Your task to perform on an android device: Go to Android settings Image 0: 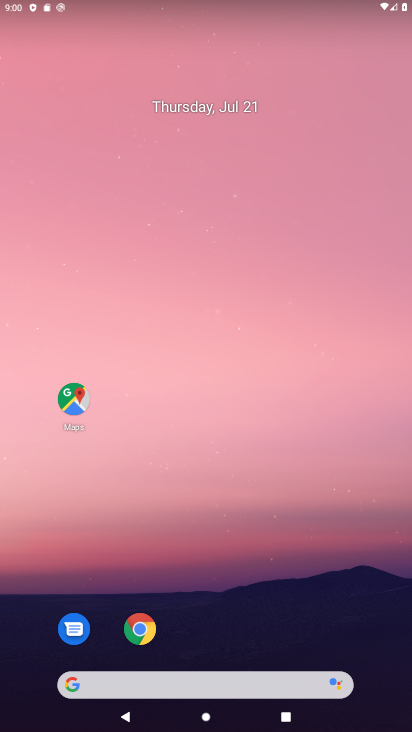
Step 0: drag from (276, 594) to (386, 9)
Your task to perform on an android device: Go to Android settings Image 1: 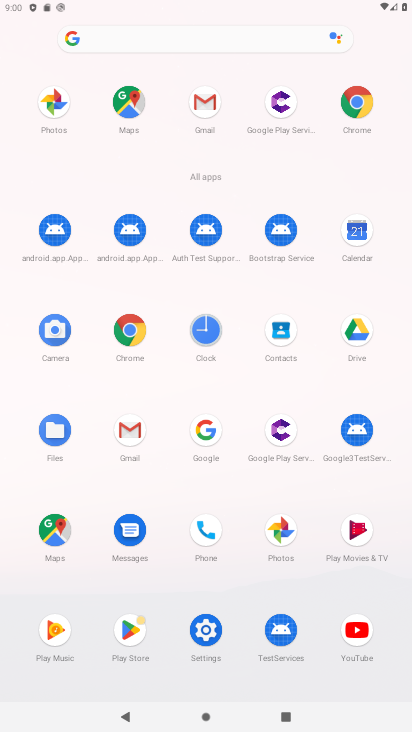
Step 1: click (207, 628)
Your task to perform on an android device: Go to Android settings Image 2: 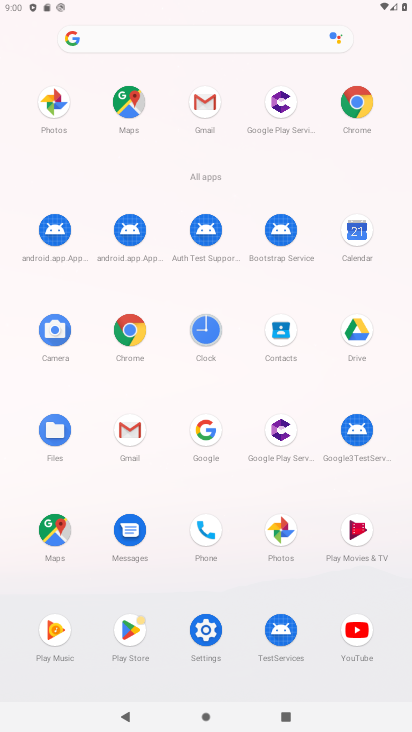
Step 2: click (207, 628)
Your task to perform on an android device: Go to Android settings Image 3: 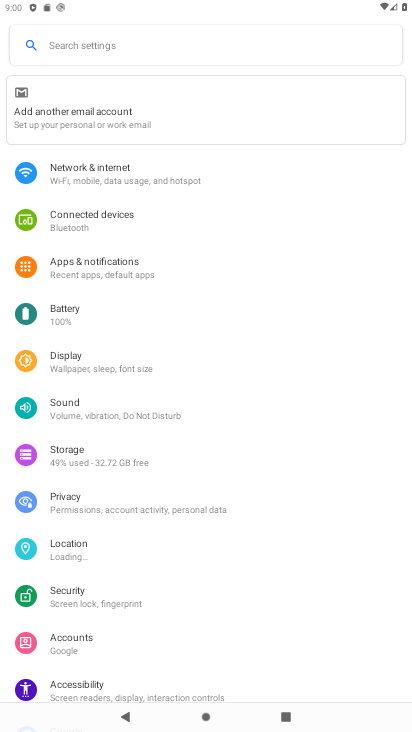
Step 3: drag from (149, 568) to (134, 42)
Your task to perform on an android device: Go to Android settings Image 4: 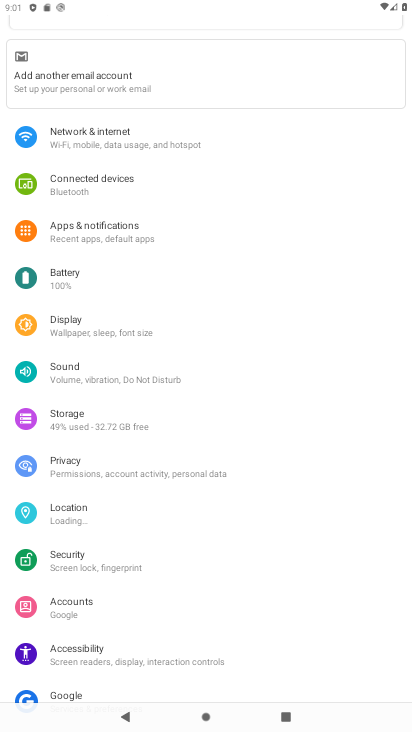
Step 4: drag from (239, 596) to (119, 139)
Your task to perform on an android device: Go to Android settings Image 5: 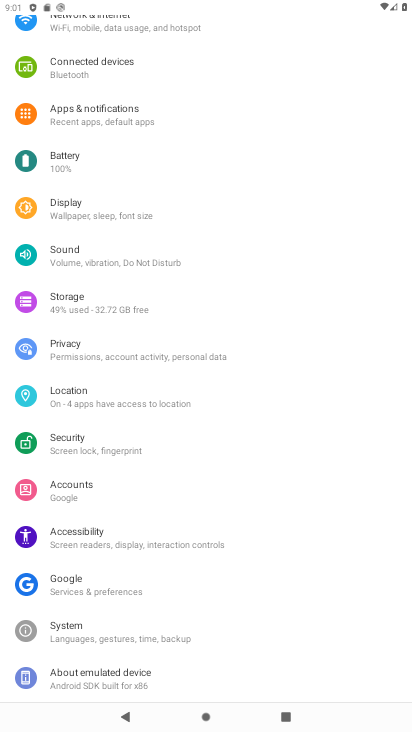
Step 5: click (107, 642)
Your task to perform on an android device: Go to Android settings Image 6: 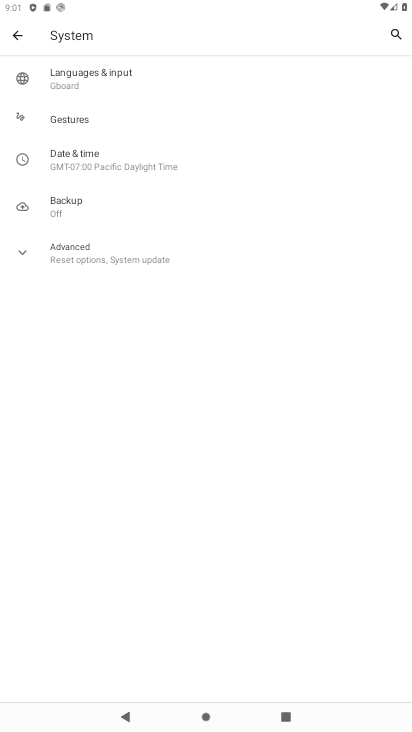
Step 6: task complete